Your task to perform on an android device: Open the stopwatch Image 0: 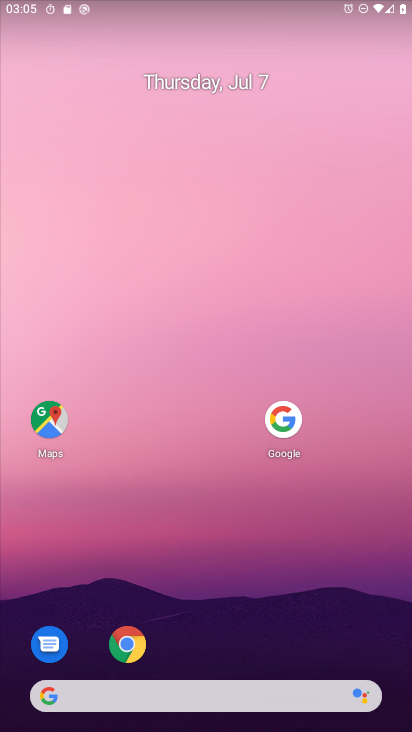
Step 0: drag from (194, 692) to (372, 26)
Your task to perform on an android device: Open the stopwatch Image 1: 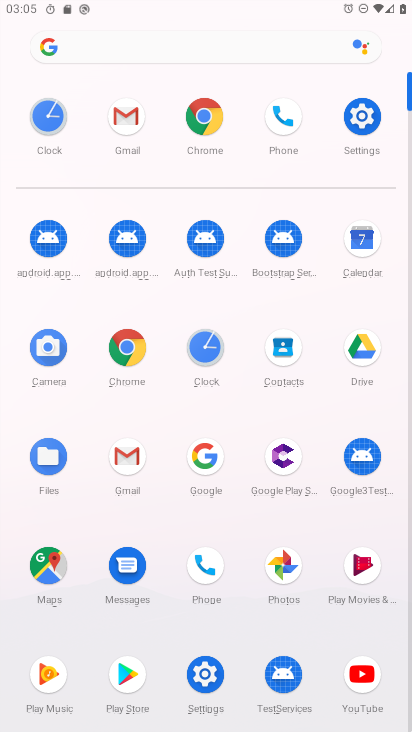
Step 1: click (207, 357)
Your task to perform on an android device: Open the stopwatch Image 2: 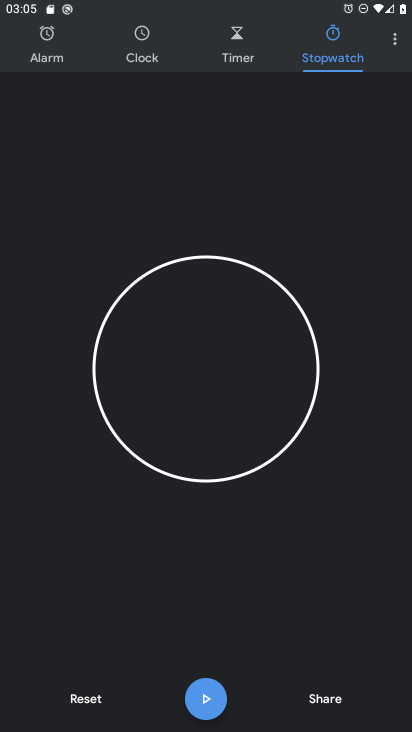
Step 2: task complete